Your task to perform on an android device: turn on priority inbox in the gmail app Image 0: 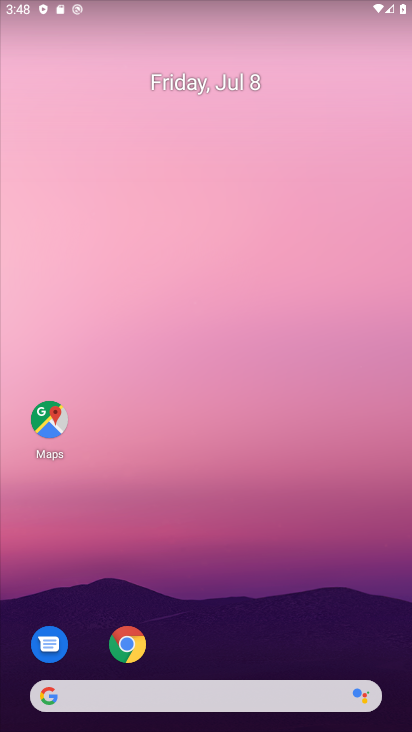
Step 0: press home button
Your task to perform on an android device: turn on priority inbox in the gmail app Image 1: 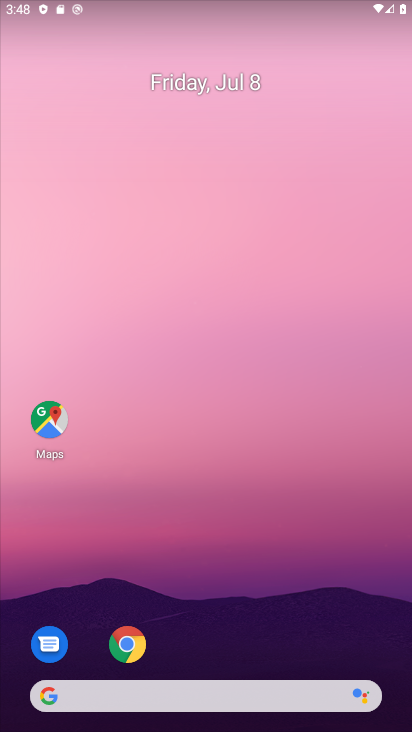
Step 1: drag from (229, 593) to (243, 83)
Your task to perform on an android device: turn on priority inbox in the gmail app Image 2: 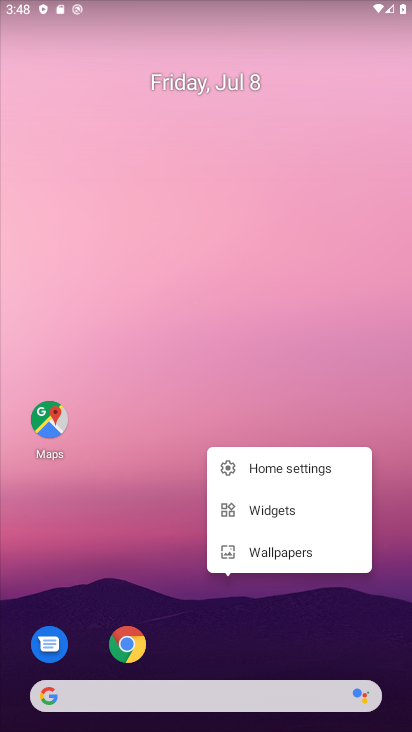
Step 2: drag from (140, 526) to (232, 15)
Your task to perform on an android device: turn on priority inbox in the gmail app Image 3: 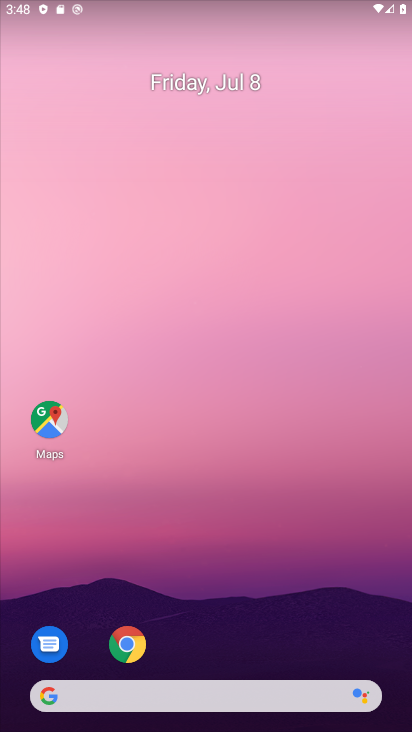
Step 3: drag from (224, 596) to (284, 2)
Your task to perform on an android device: turn on priority inbox in the gmail app Image 4: 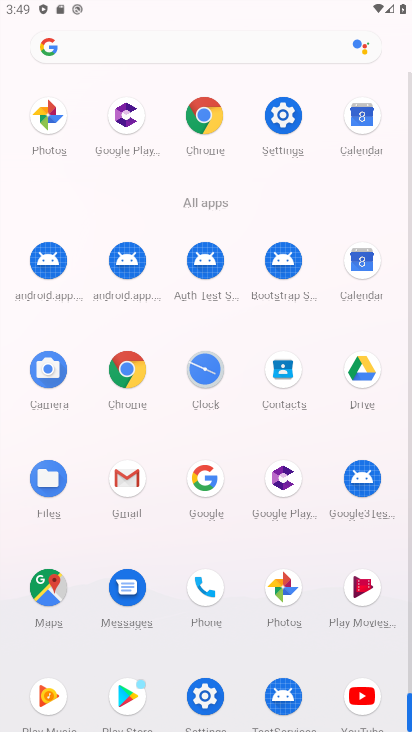
Step 4: click (124, 477)
Your task to perform on an android device: turn on priority inbox in the gmail app Image 5: 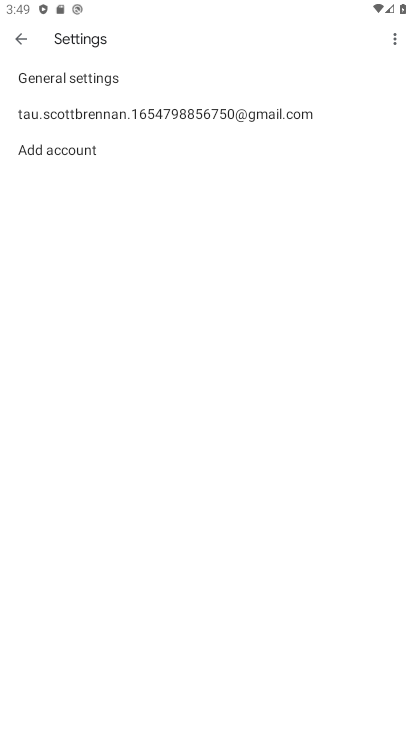
Step 5: click (67, 115)
Your task to perform on an android device: turn on priority inbox in the gmail app Image 6: 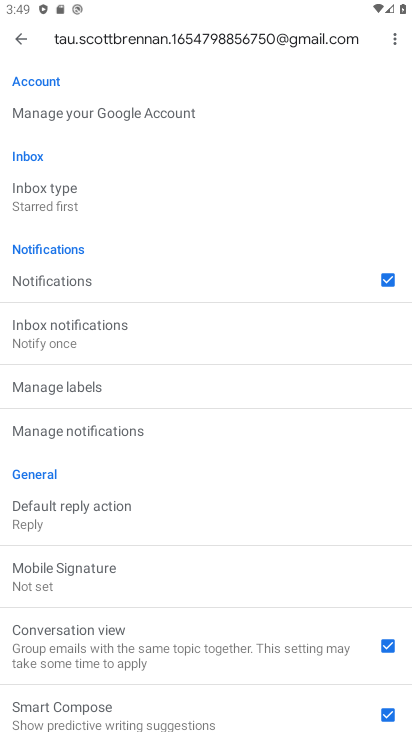
Step 6: click (46, 194)
Your task to perform on an android device: turn on priority inbox in the gmail app Image 7: 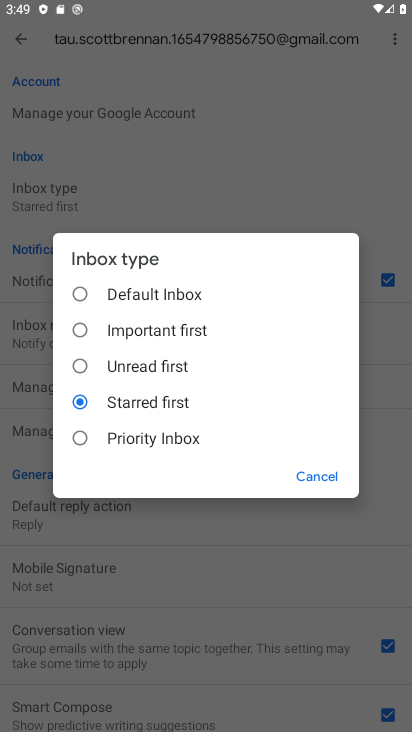
Step 7: click (104, 435)
Your task to perform on an android device: turn on priority inbox in the gmail app Image 8: 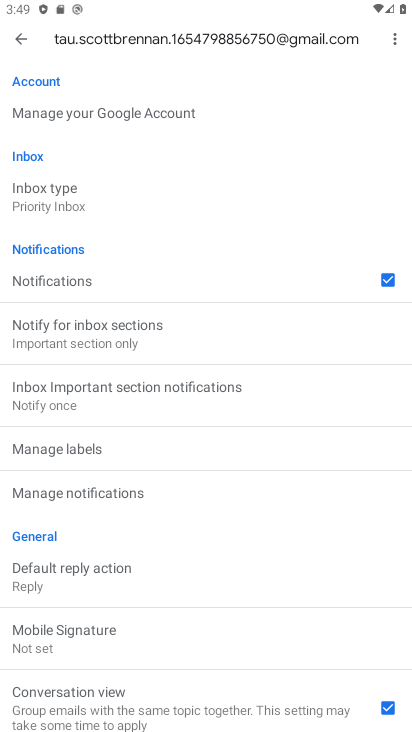
Step 8: task complete